Your task to perform on an android device: Go to Reddit.com Image 0: 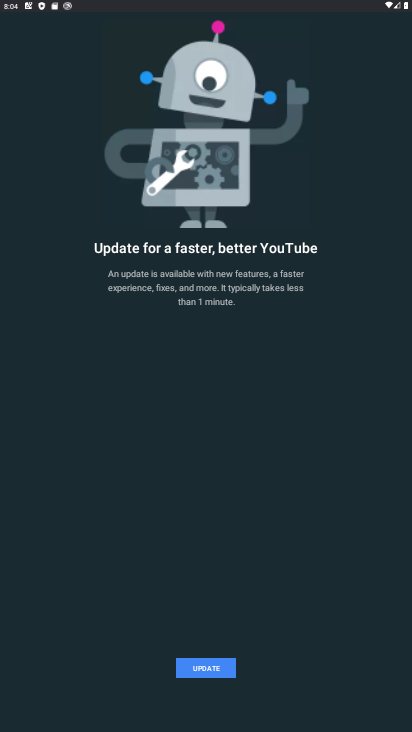
Step 0: drag from (189, 618) to (217, 234)
Your task to perform on an android device: Go to Reddit.com Image 1: 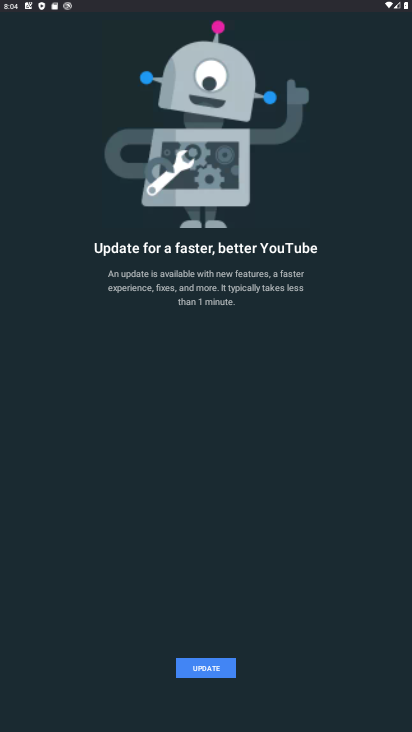
Step 1: press home button
Your task to perform on an android device: Go to Reddit.com Image 2: 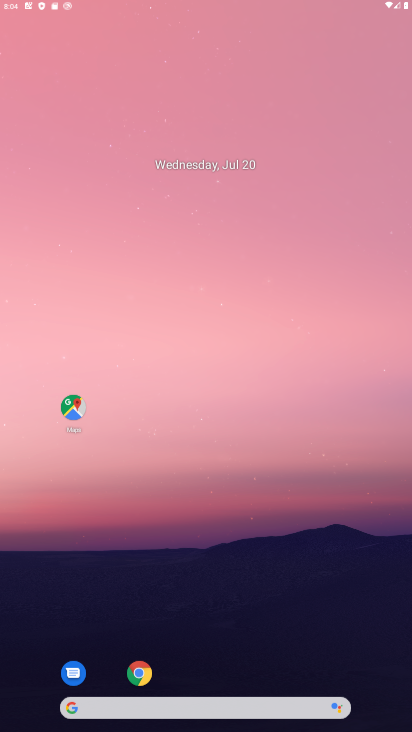
Step 2: drag from (191, 554) to (231, 108)
Your task to perform on an android device: Go to Reddit.com Image 3: 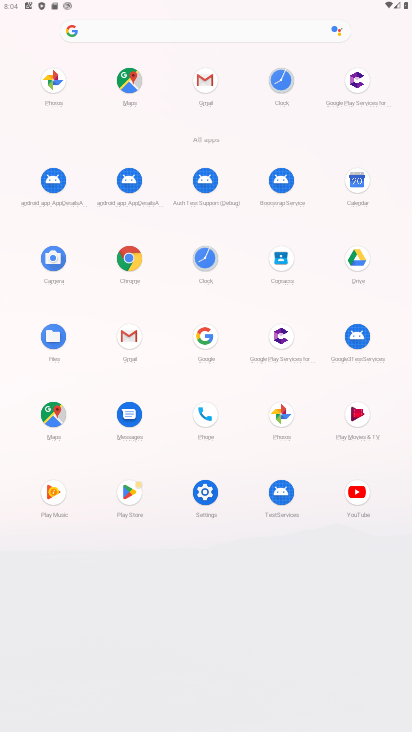
Step 3: click (158, 27)
Your task to perform on an android device: Go to Reddit.com Image 4: 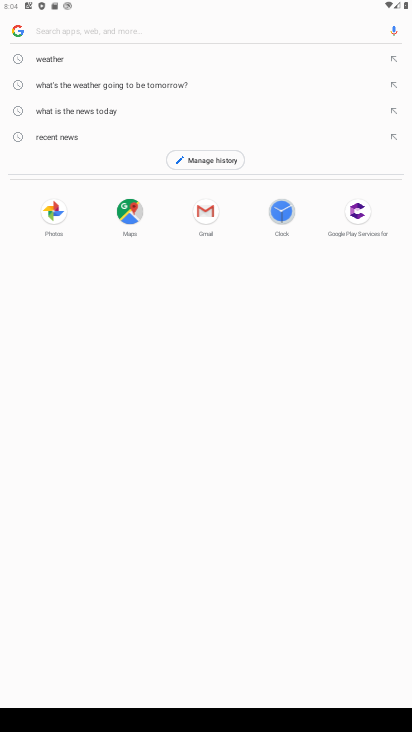
Step 4: type "reddit.com"
Your task to perform on an android device: Go to Reddit.com Image 5: 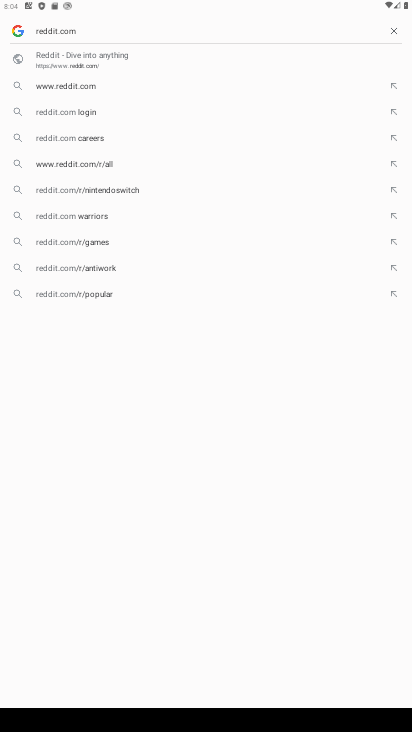
Step 5: click (69, 85)
Your task to perform on an android device: Go to Reddit.com Image 6: 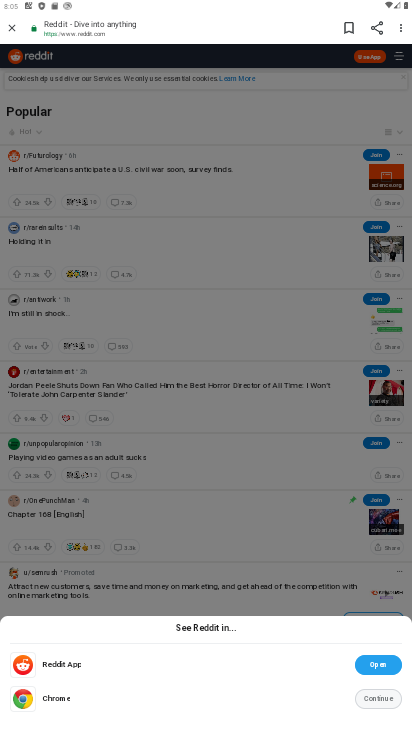
Step 6: task complete